Your task to perform on an android device: add a contact Image 0: 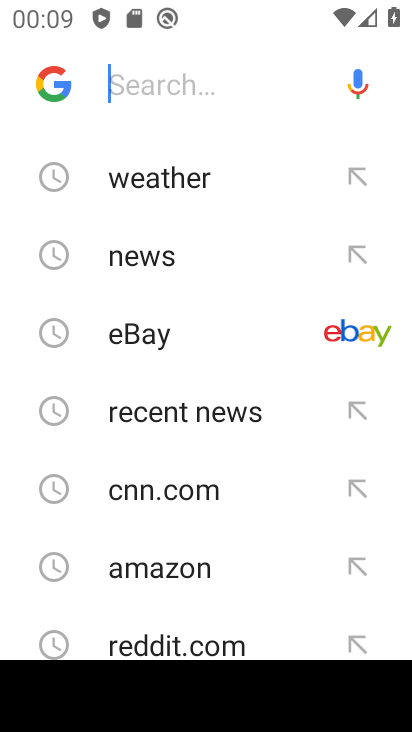
Step 0: press home button
Your task to perform on an android device: add a contact Image 1: 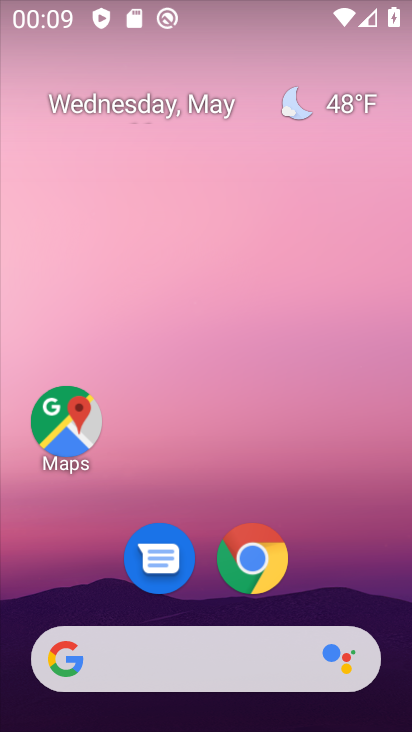
Step 1: drag from (356, 589) to (308, 102)
Your task to perform on an android device: add a contact Image 2: 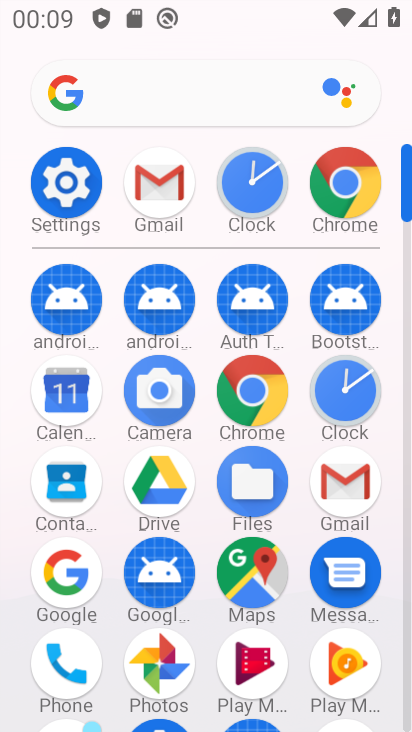
Step 2: click (53, 481)
Your task to perform on an android device: add a contact Image 3: 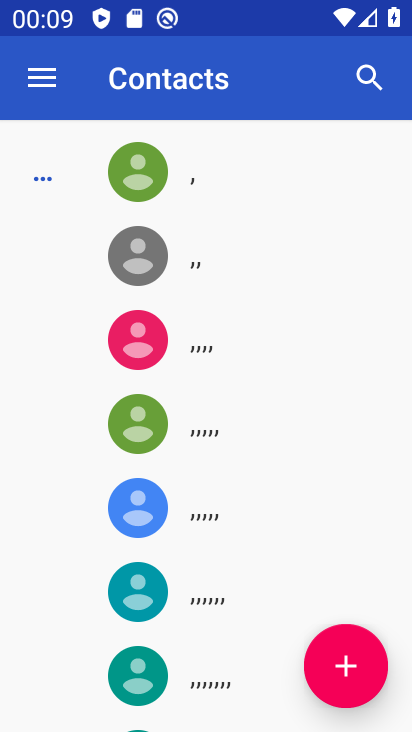
Step 3: click (365, 70)
Your task to perform on an android device: add a contact Image 4: 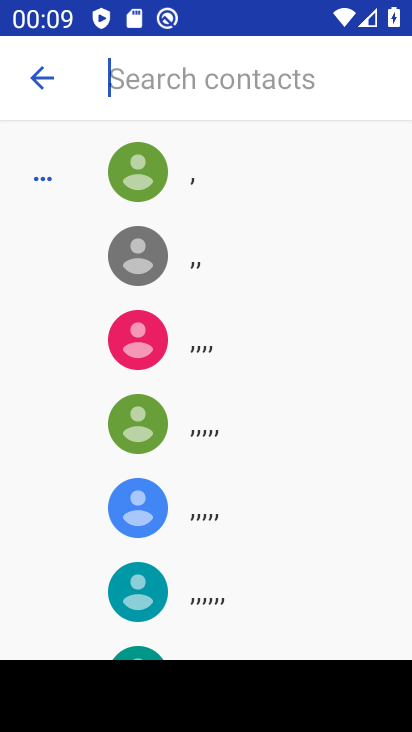
Step 4: click (23, 72)
Your task to perform on an android device: add a contact Image 5: 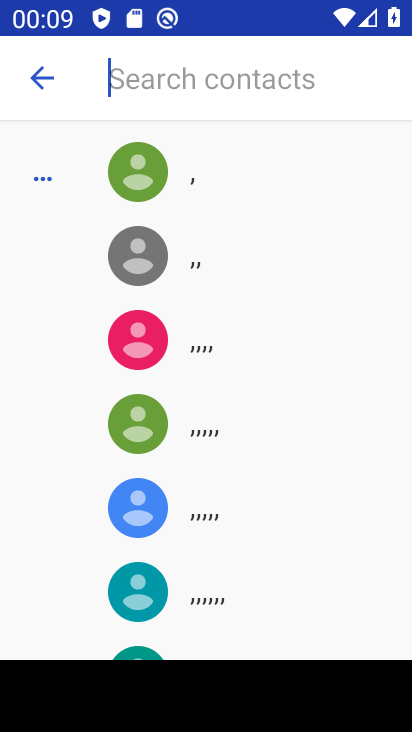
Step 5: click (47, 78)
Your task to perform on an android device: add a contact Image 6: 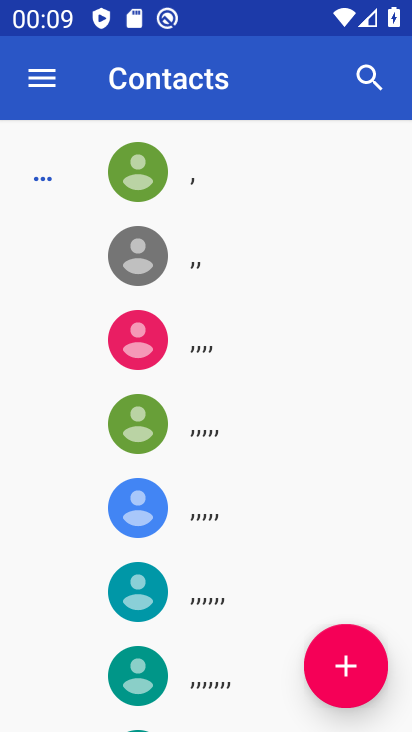
Step 6: click (351, 666)
Your task to perform on an android device: add a contact Image 7: 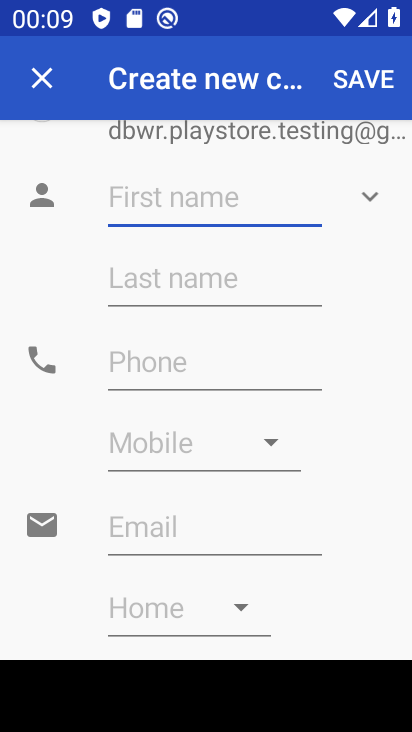
Step 7: type "ravi"
Your task to perform on an android device: add a contact Image 8: 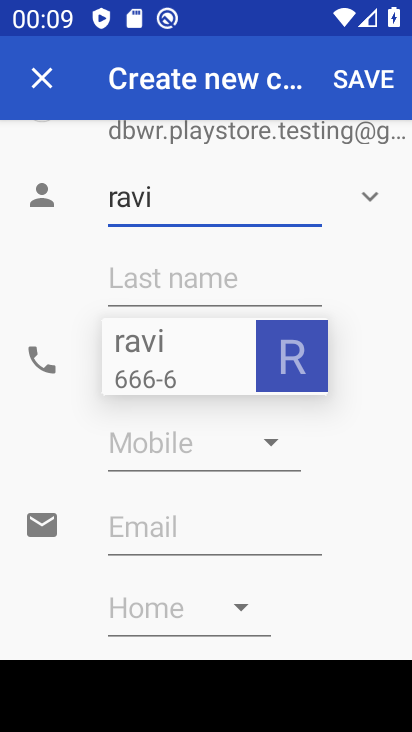
Step 8: click (393, 305)
Your task to perform on an android device: add a contact Image 9: 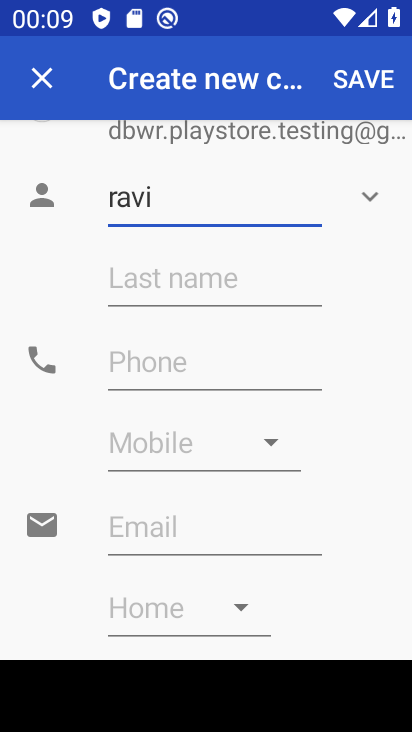
Step 9: click (188, 372)
Your task to perform on an android device: add a contact Image 10: 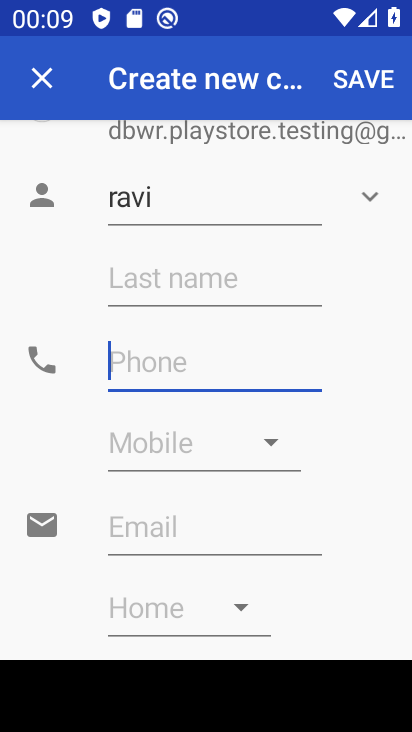
Step 10: type "7765654435"
Your task to perform on an android device: add a contact Image 11: 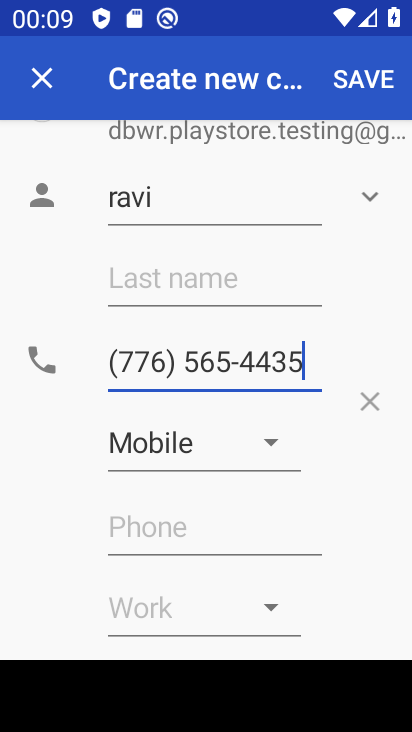
Step 11: click (367, 73)
Your task to perform on an android device: add a contact Image 12: 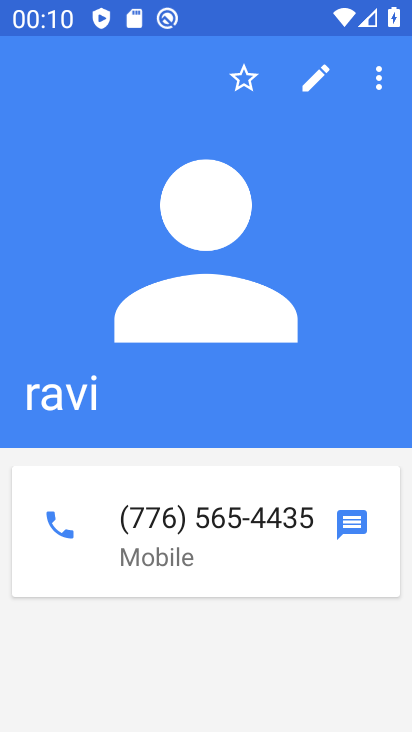
Step 12: task complete